Your task to perform on an android device: change text size in settings app Image 0: 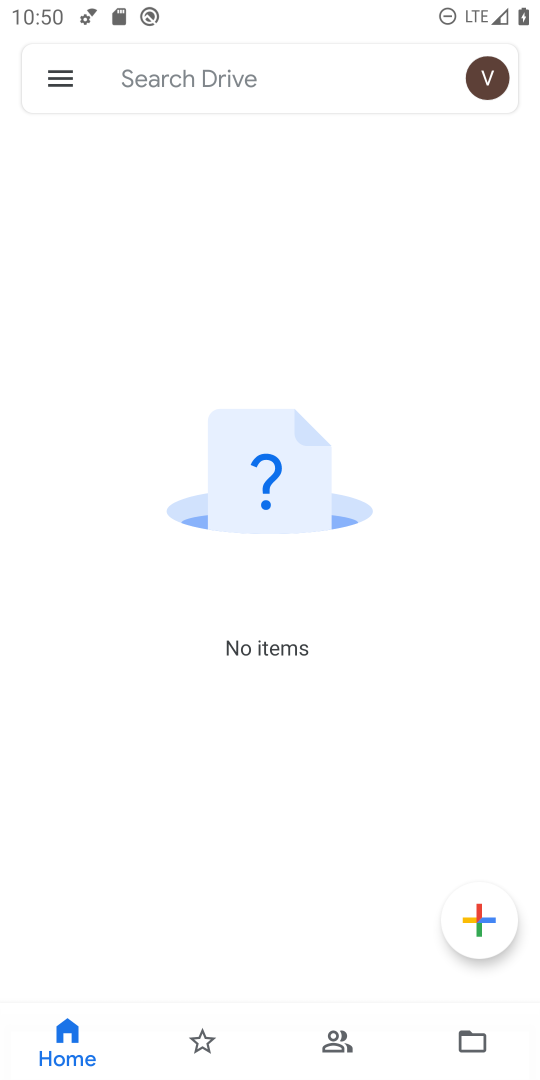
Step 0: press home button
Your task to perform on an android device: change text size in settings app Image 1: 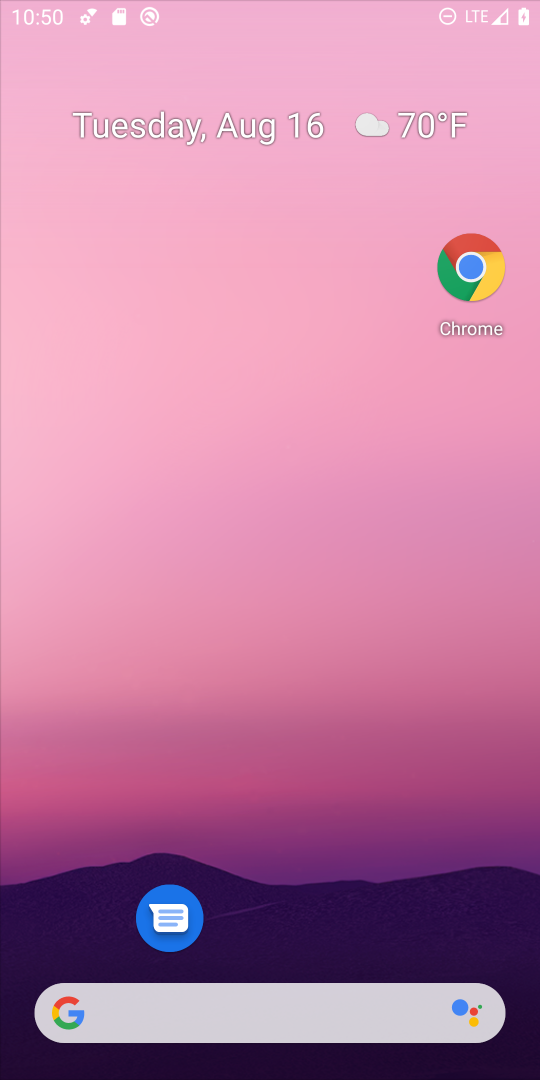
Step 1: drag from (287, 664) to (299, 140)
Your task to perform on an android device: change text size in settings app Image 2: 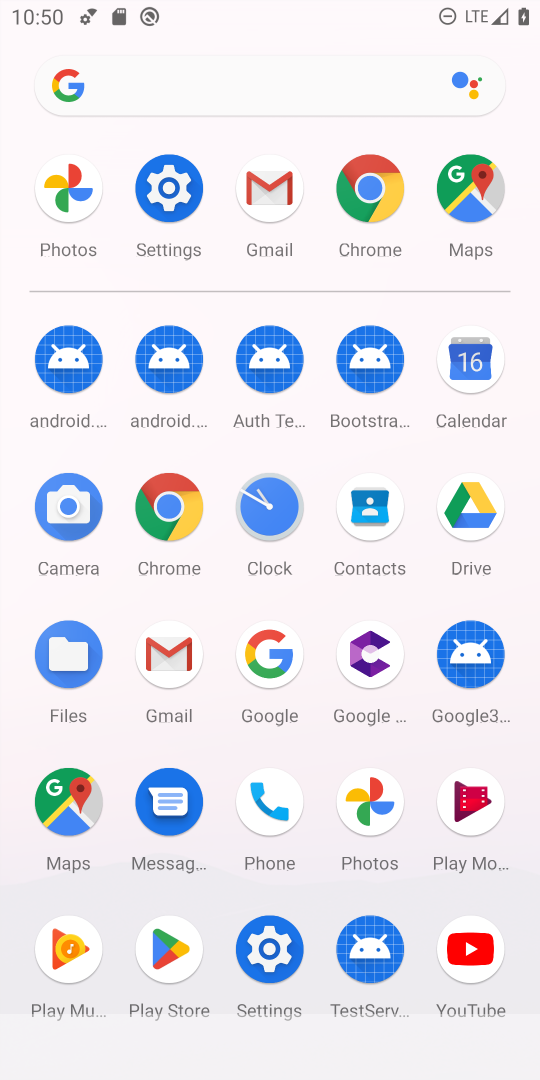
Step 2: click (160, 227)
Your task to perform on an android device: change text size in settings app Image 3: 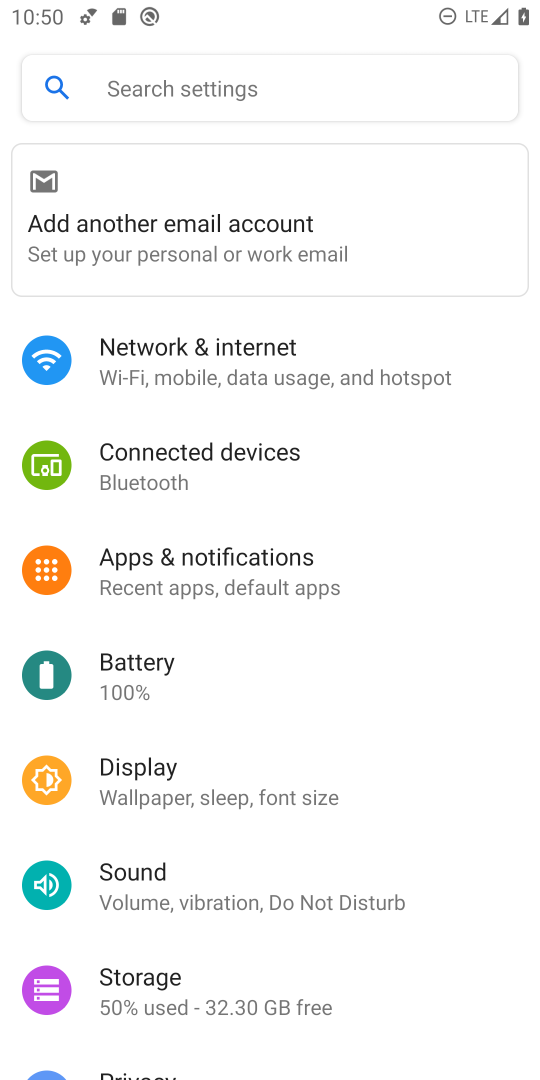
Step 3: drag from (189, 925) to (244, 259)
Your task to perform on an android device: change text size in settings app Image 4: 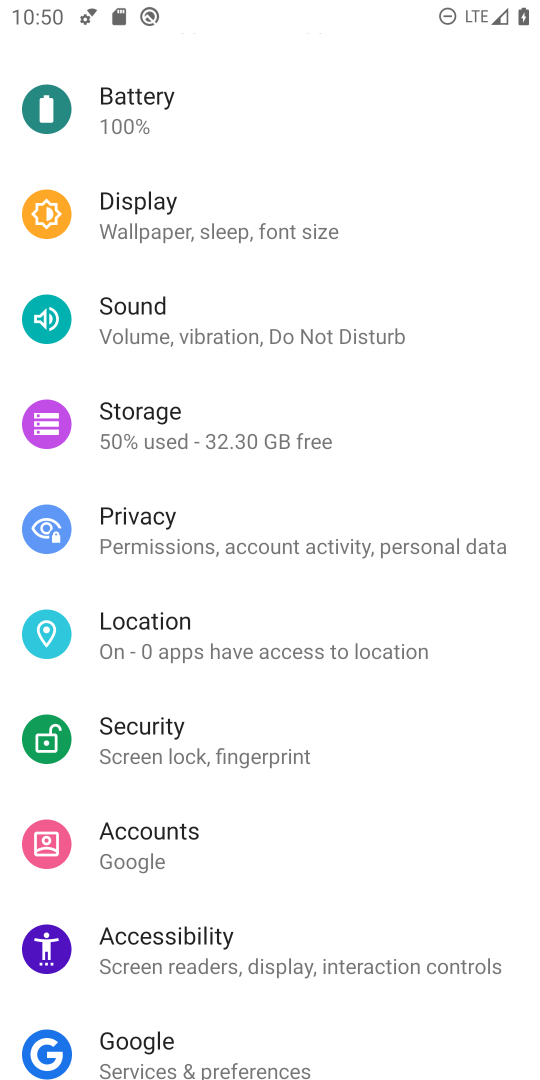
Step 4: click (194, 224)
Your task to perform on an android device: change text size in settings app Image 5: 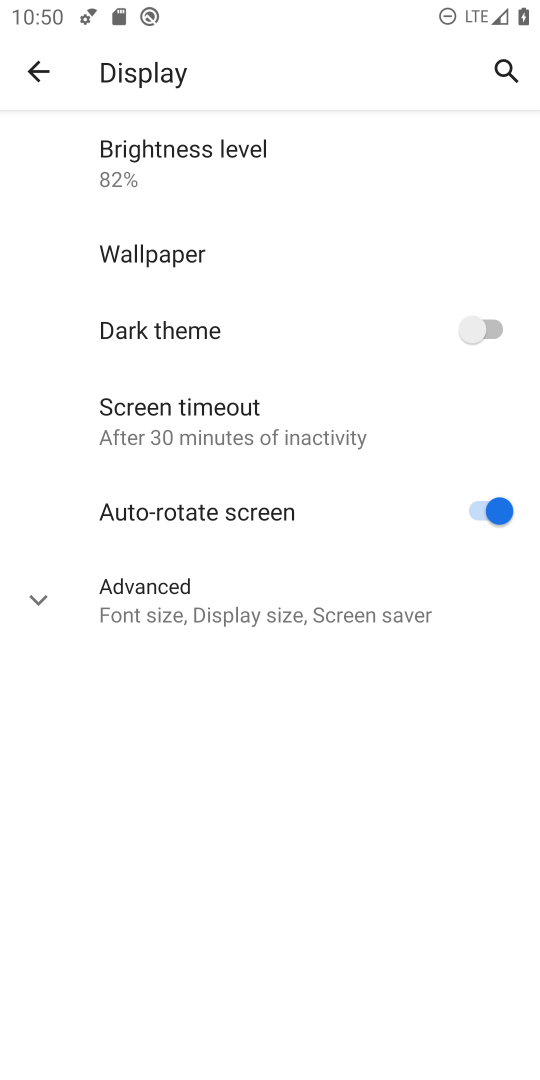
Step 5: click (229, 603)
Your task to perform on an android device: change text size in settings app Image 6: 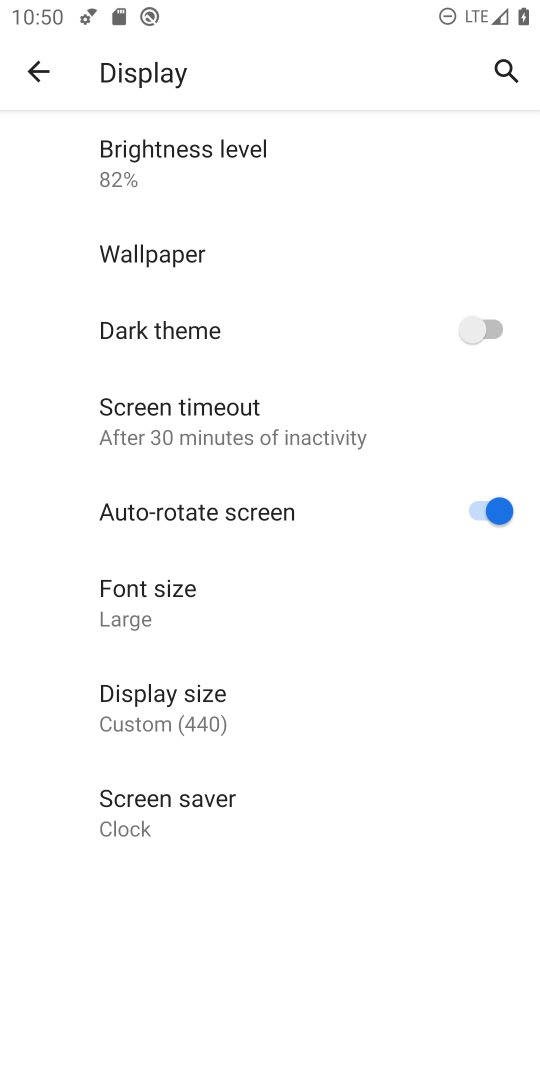
Step 6: click (172, 621)
Your task to perform on an android device: change text size in settings app Image 7: 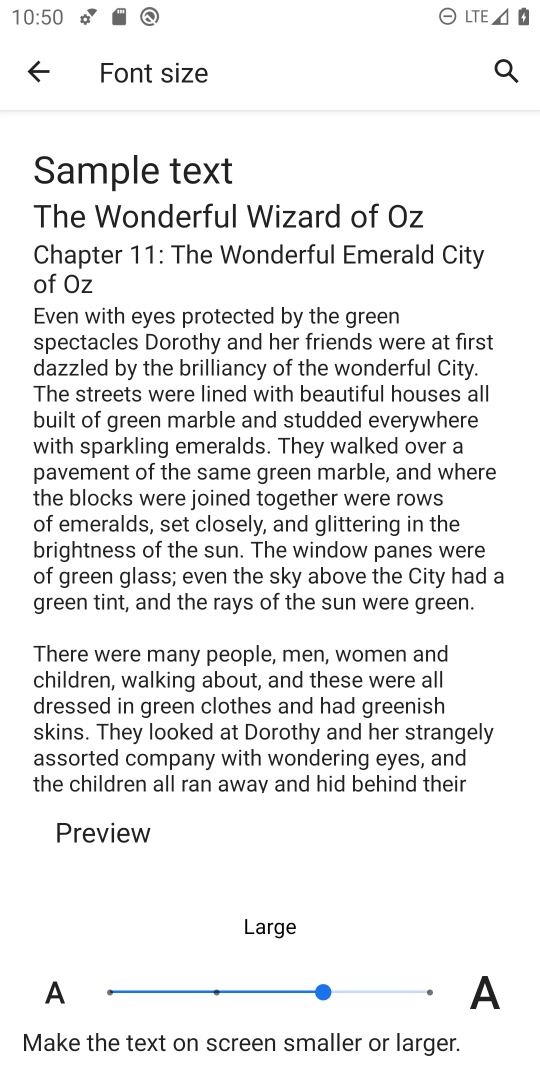
Step 7: task complete